Your task to perform on an android device: show emergency info Image 0: 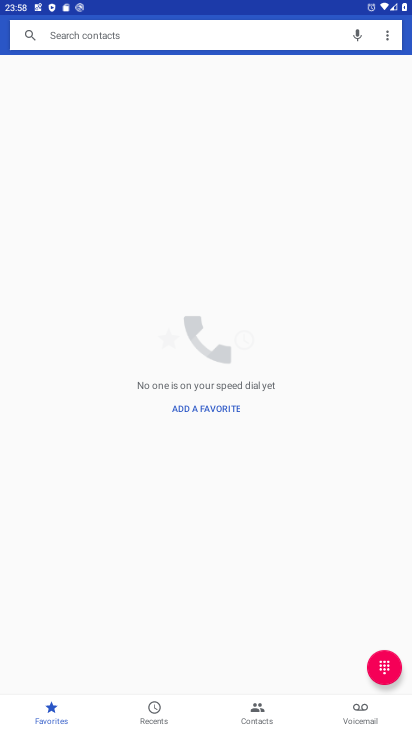
Step 0: click (314, 2)
Your task to perform on an android device: show emergency info Image 1: 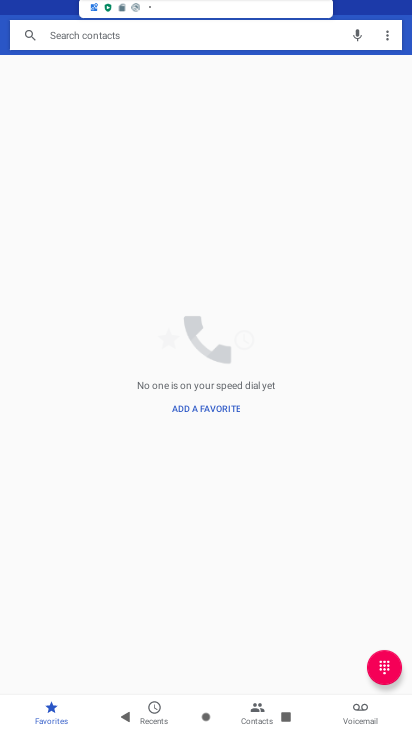
Step 1: drag from (314, 2) to (334, 521)
Your task to perform on an android device: show emergency info Image 2: 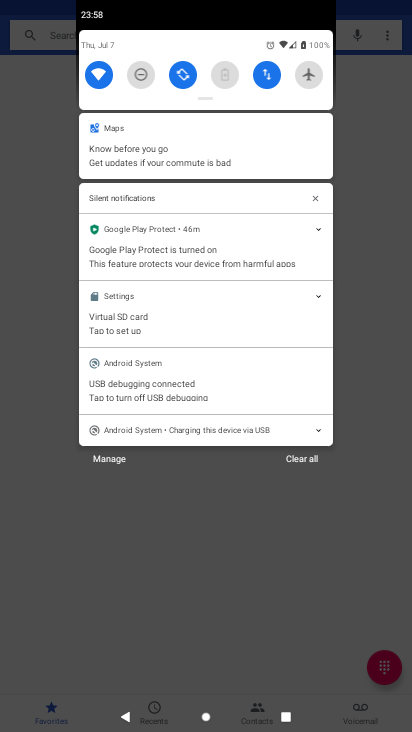
Step 2: drag from (205, 56) to (208, 494)
Your task to perform on an android device: show emergency info Image 3: 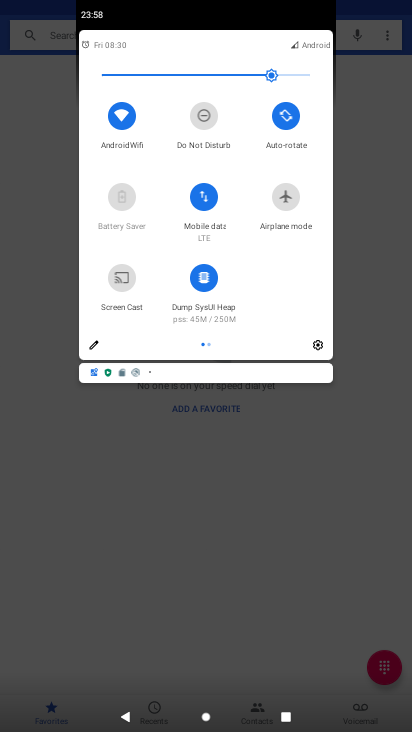
Step 3: click (316, 350)
Your task to perform on an android device: show emergency info Image 4: 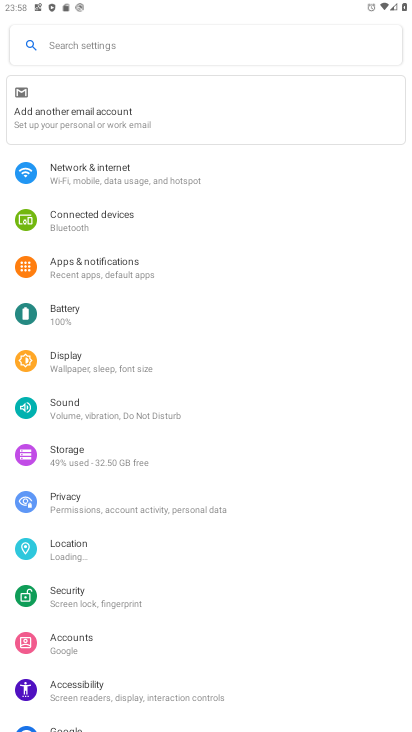
Step 4: drag from (77, 709) to (148, 116)
Your task to perform on an android device: show emergency info Image 5: 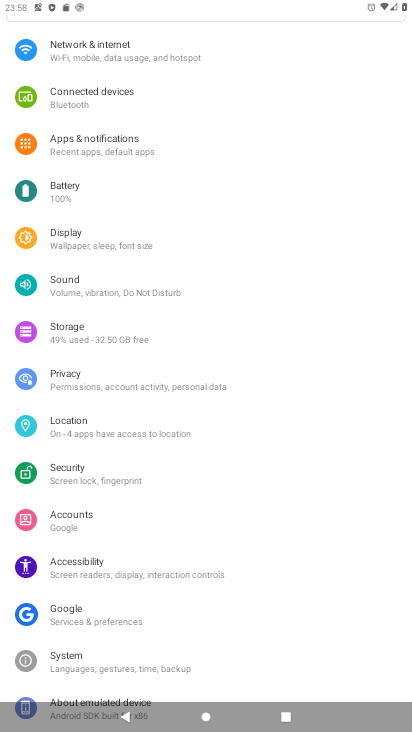
Step 5: drag from (93, 671) to (171, 50)
Your task to perform on an android device: show emergency info Image 6: 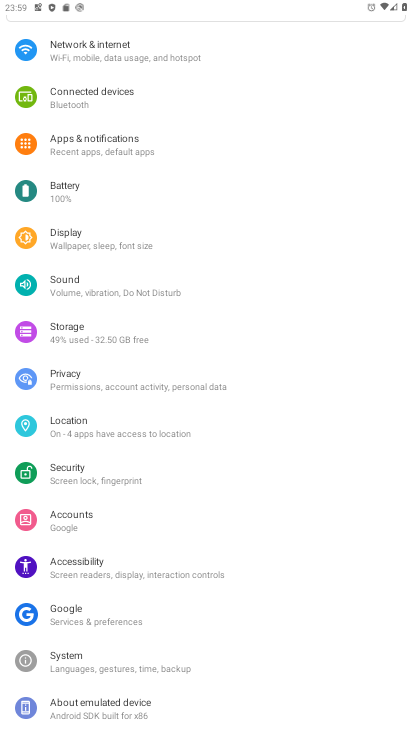
Step 6: click (53, 702)
Your task to perform on an android device: show emergency info Image 7: 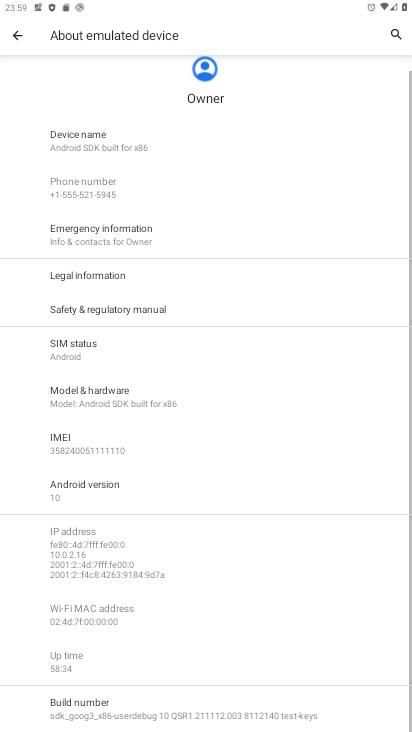
Step 7: click (194, 248)
Your task to perform on an android device: show emergency info Image 8: 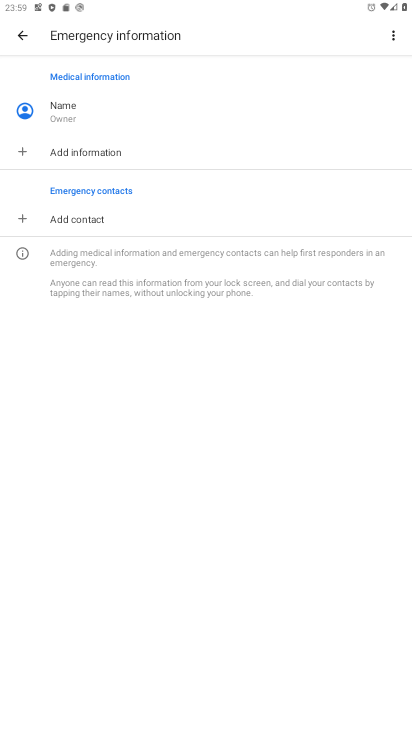
Step 8: task complete